Your task to perform on an android device: open app "AliExpress" (install if not already installed) Image 0: 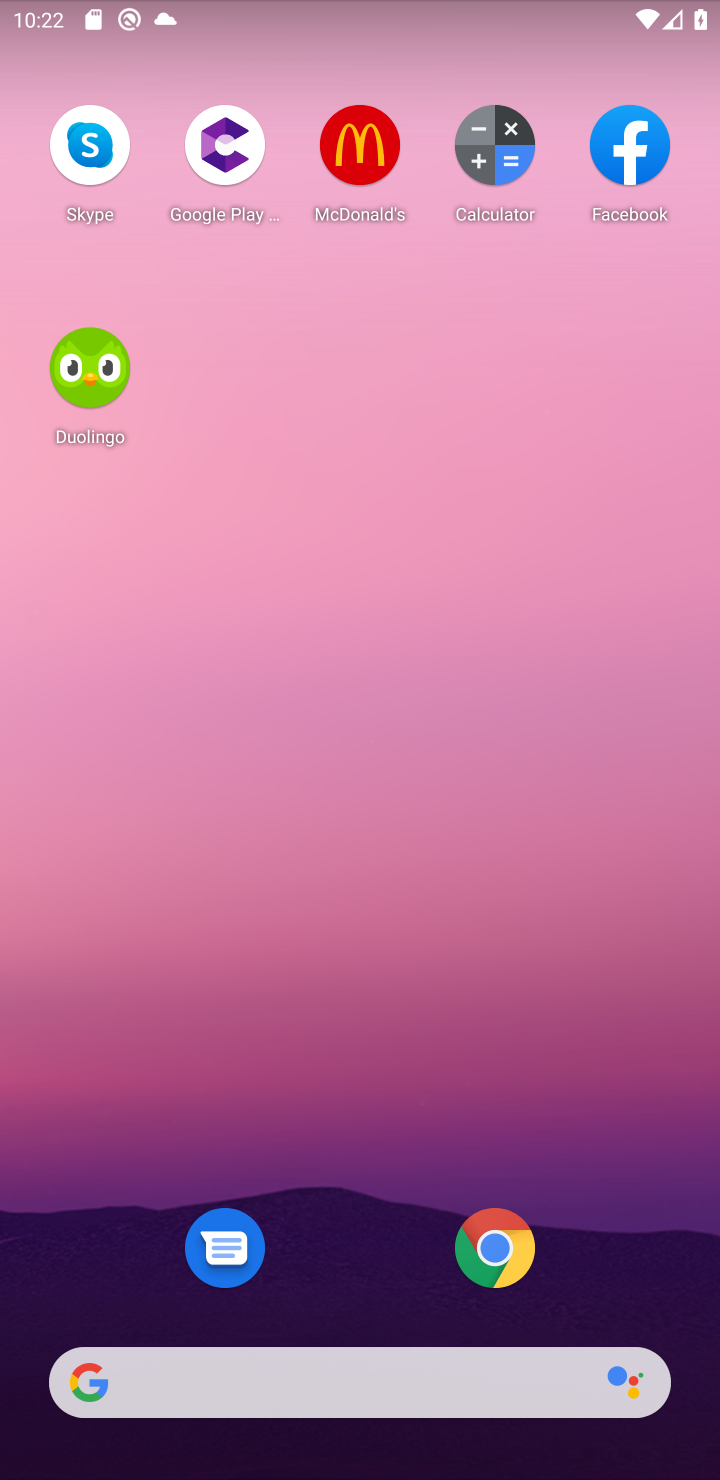
Step 0: drag from (390, 1270) to (383, 44)
Your task to perform on an android device: open app "AliExpress" (install if not already installed) Image 1: 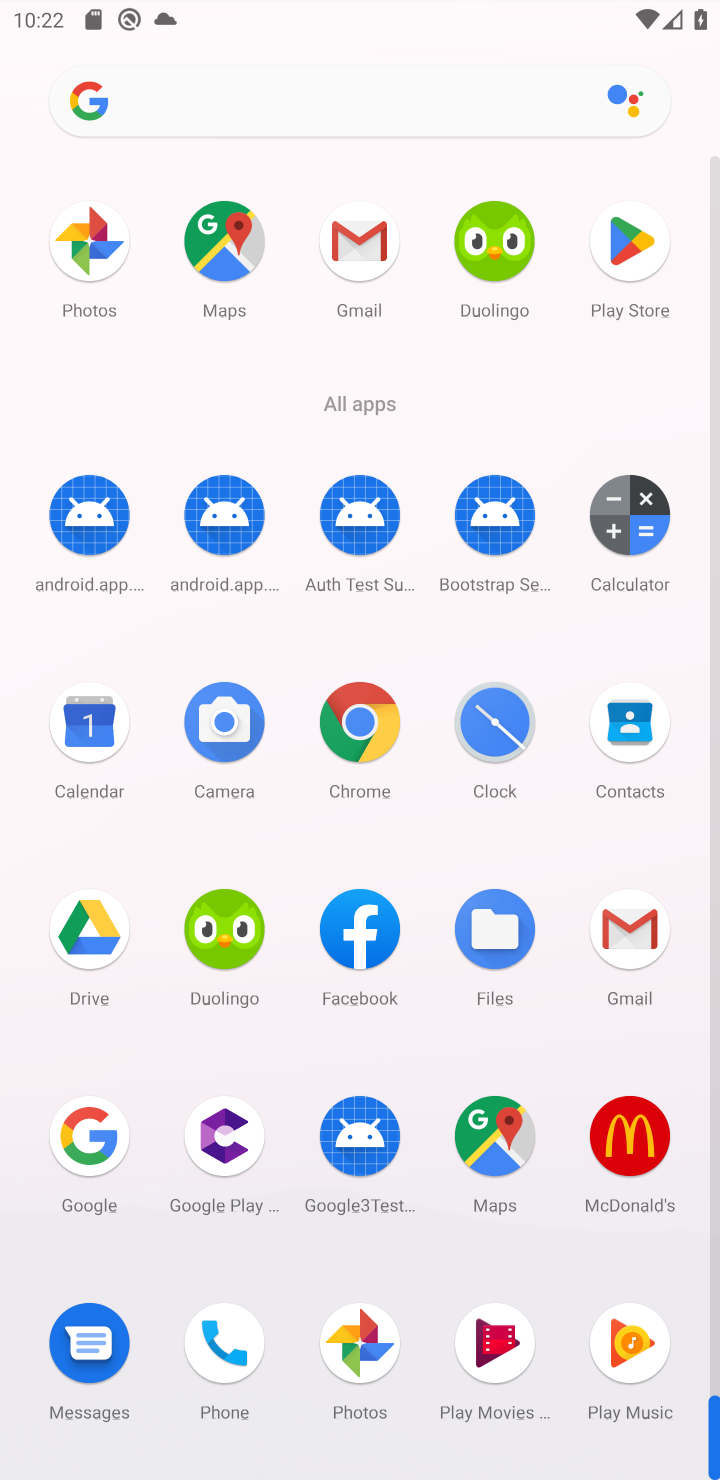
Step 1: drag from (546, 1246) to (576, 483)
Your task to perform on an android device: open app "AliExpress" (install if not already installed) Image 2: 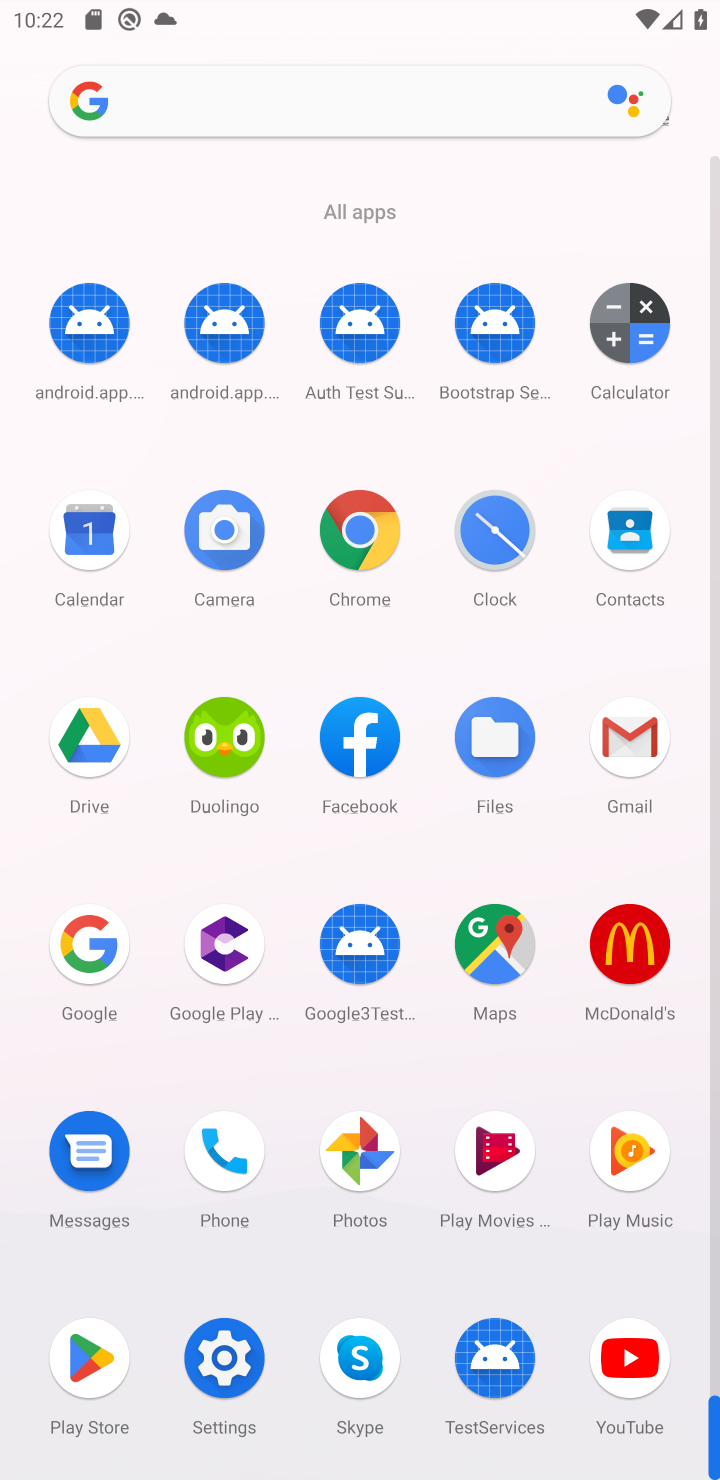
Step 2: click (102, 1363)
Your task to perform on an android device: open app "AliExpress" (install if not already installed) Image 3: 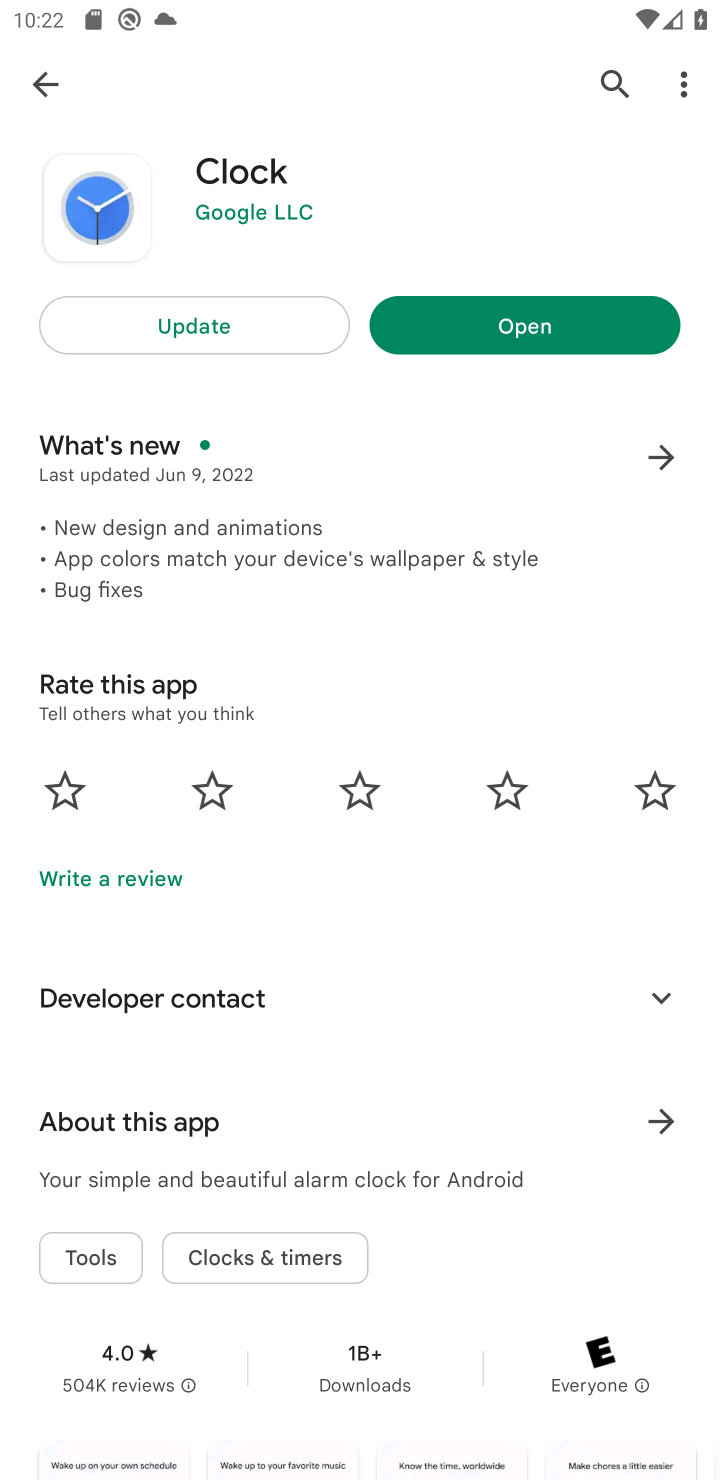
Step 3: click (622, 76)
Your task to perform on an android device: open app "AliExpress" (install if not already installed) Image 4: 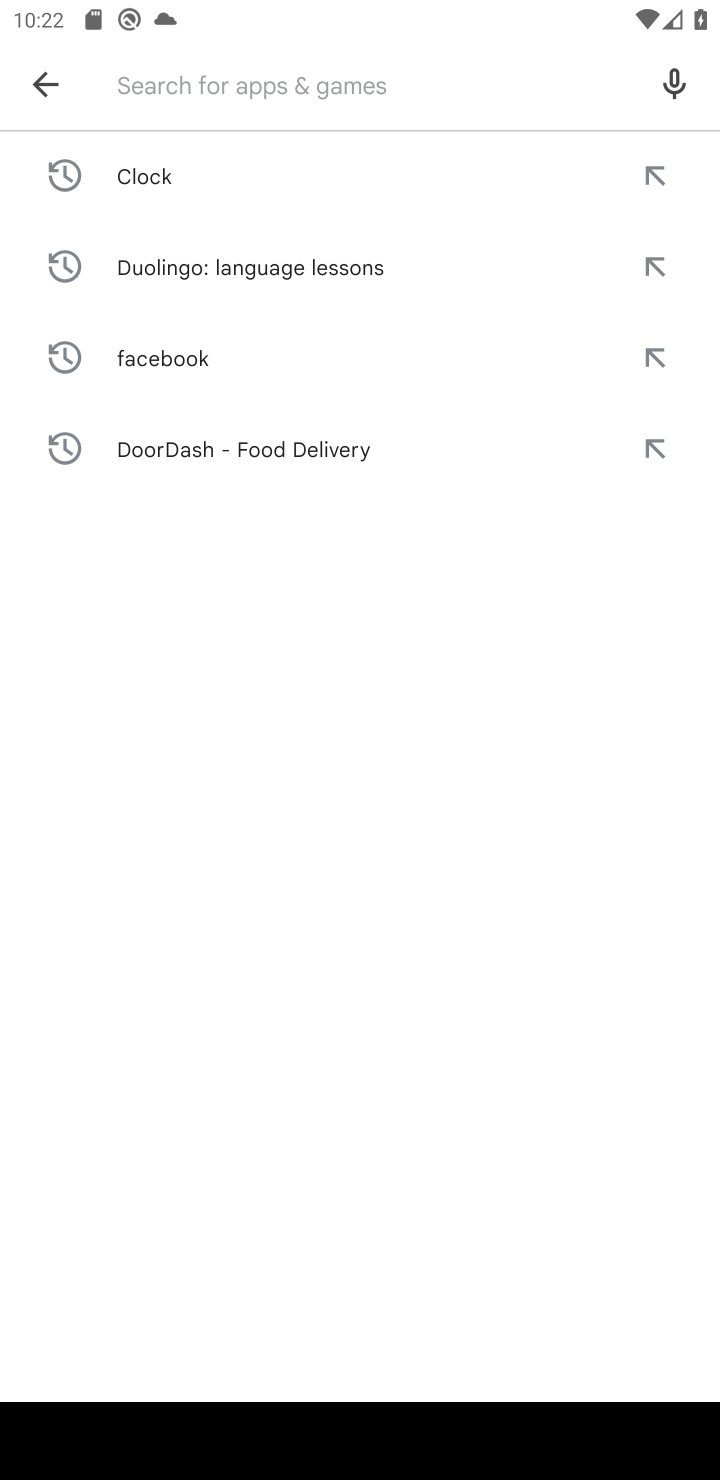
Step 4: type "AliExpress"
Your task to perform on an android device: open app "AliExpress" (install if not already installed) Image 5: 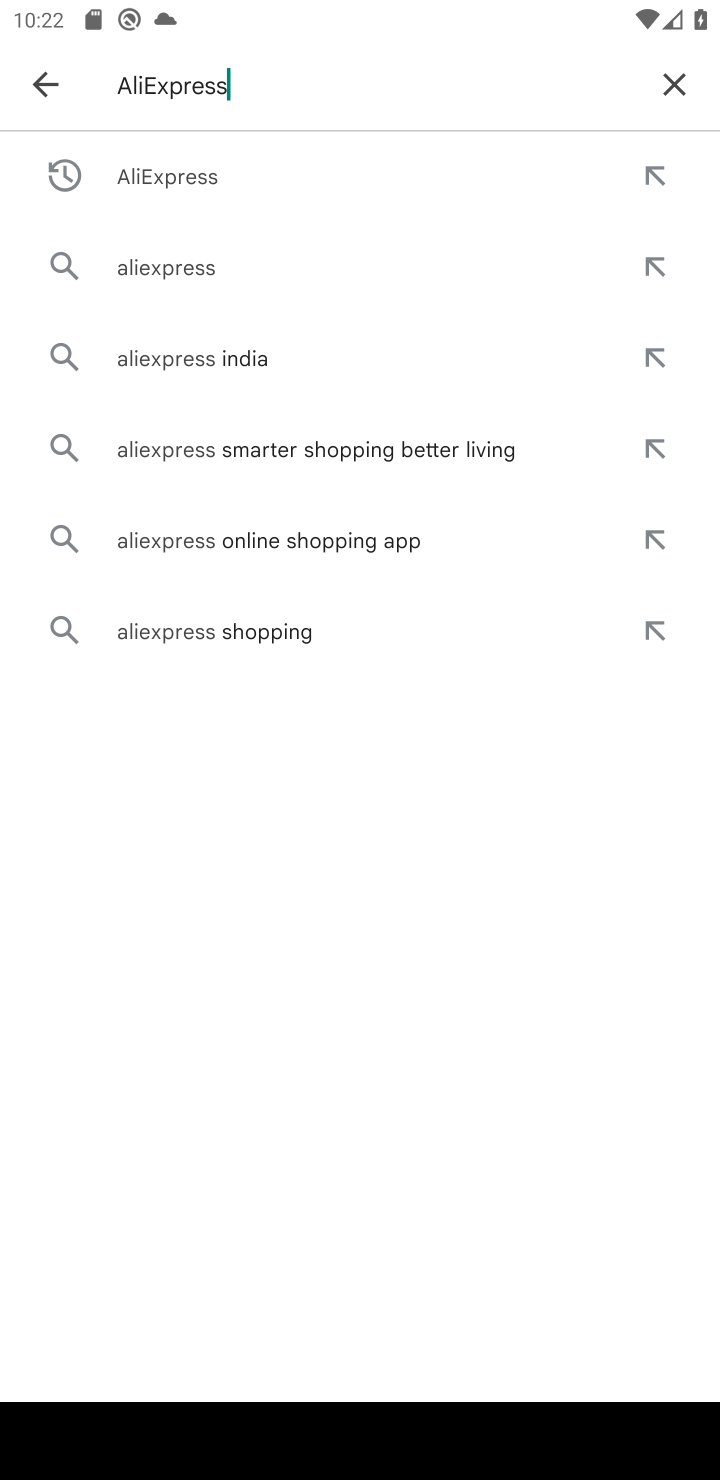
Step 5: click (196, 157)
Your task to perform on an android device: open app "AliExpress" (install if not already installed) Image 6: 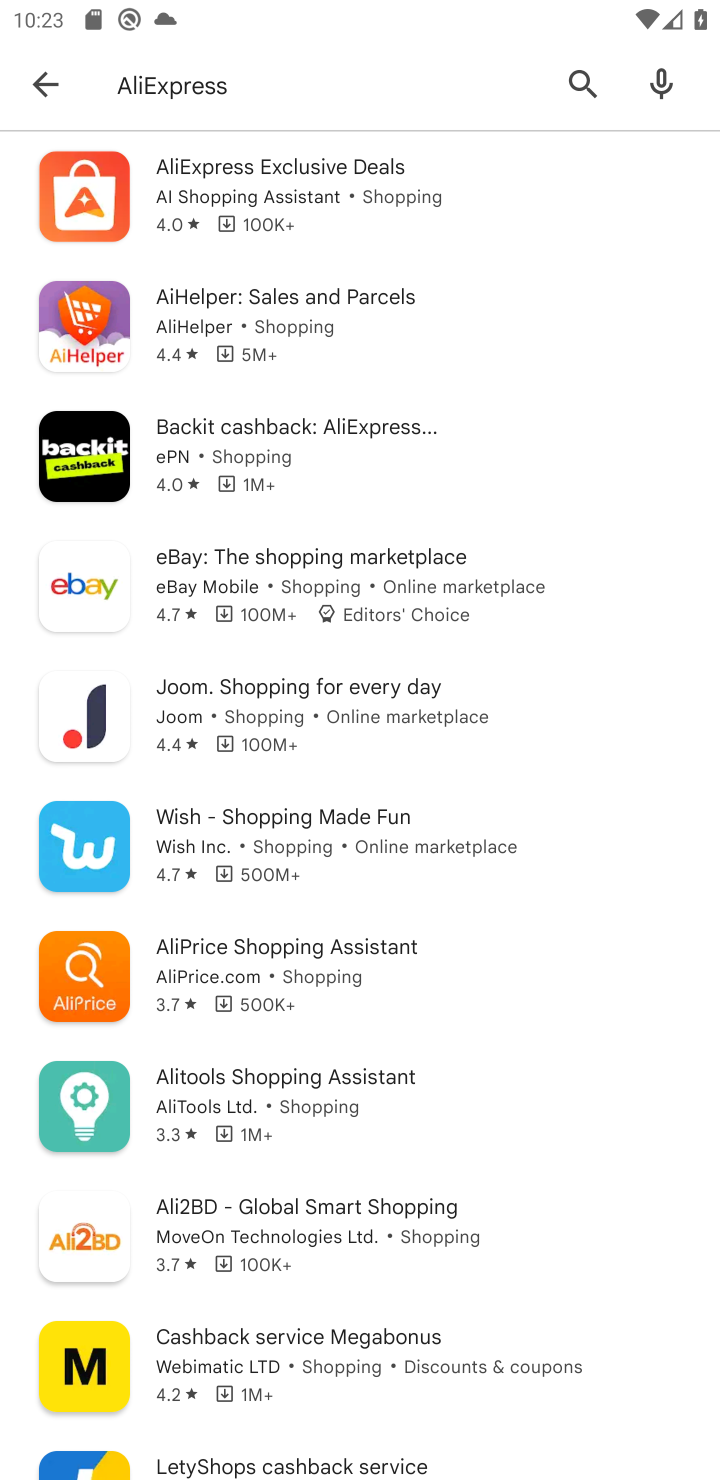
Step 6: task complete